Your task to perform on an android device: What time is it in Moscow? Image 0: 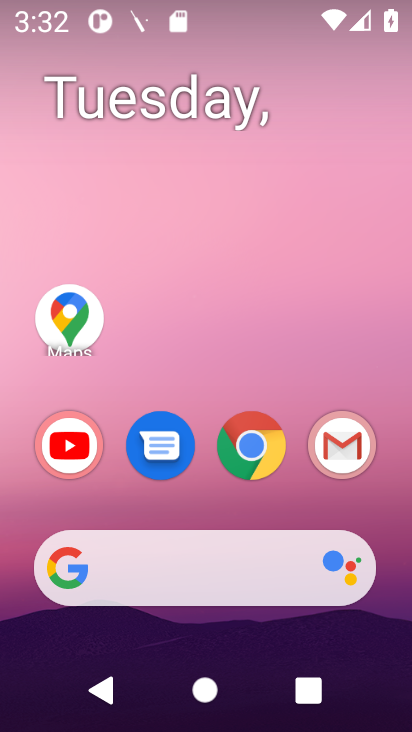
Step 0: drag from (252, 534) to (275, 74)
Your task to perform on an android device: What time is it in Moscow? Image 1: 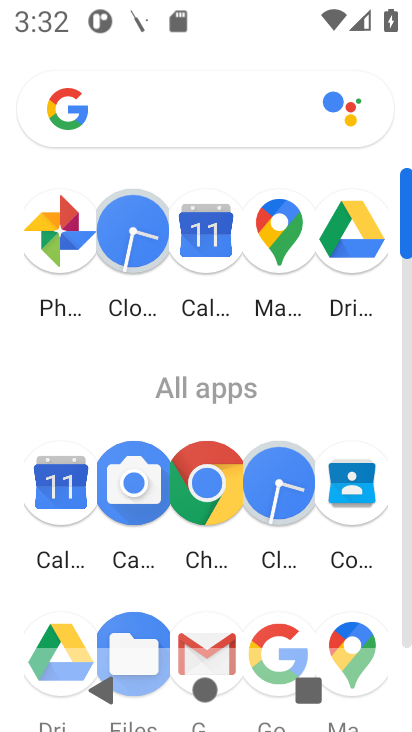
Step 1: click (282, 629)
Your task to perform on an android device: What time is it in Moscow? Image 2: 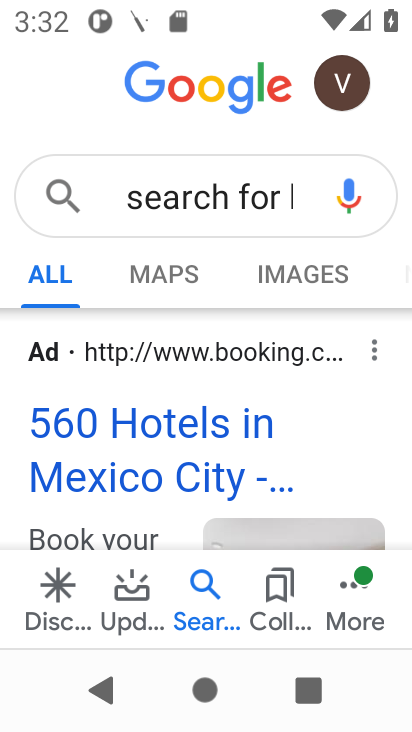
Step 2: click (191, 201)
Your task to perform on an android device: What time is it in Moscow? Image 3: 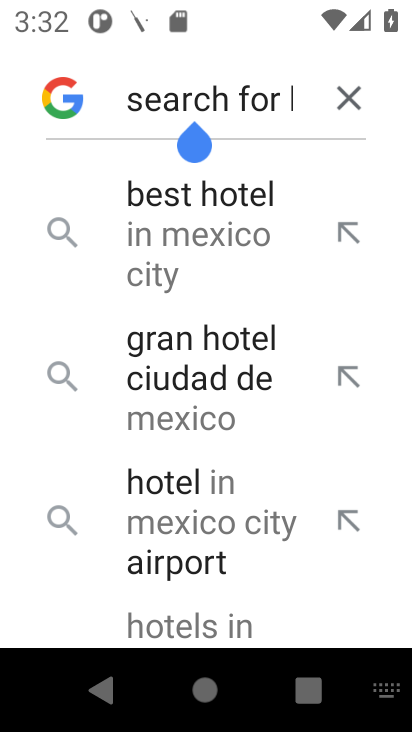
Step 3: click (354, 102)
Your task to perform on an android device: What time is it in Moscow? Image 4: 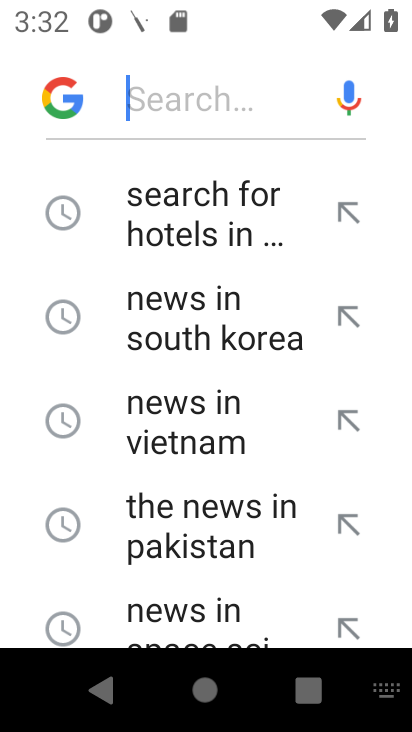
Step 4: type "What time is it in Moscow?"
Your task to perform on an android device: What time is it in Moscow? Image 5: 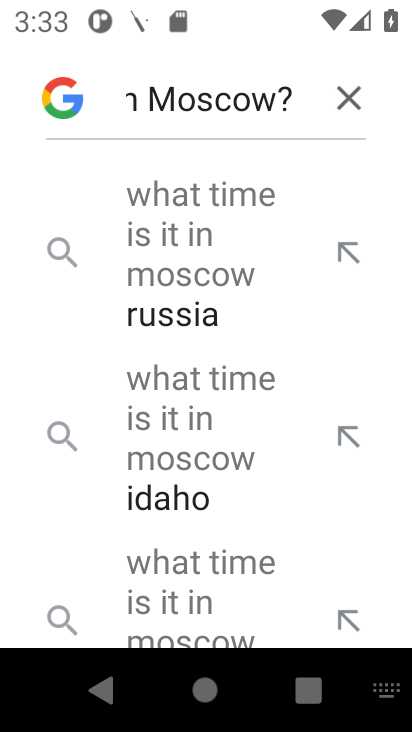
Step 5: click (204, 262)
Your task to perform on an android device: What time is it in Moscow? Image 6: 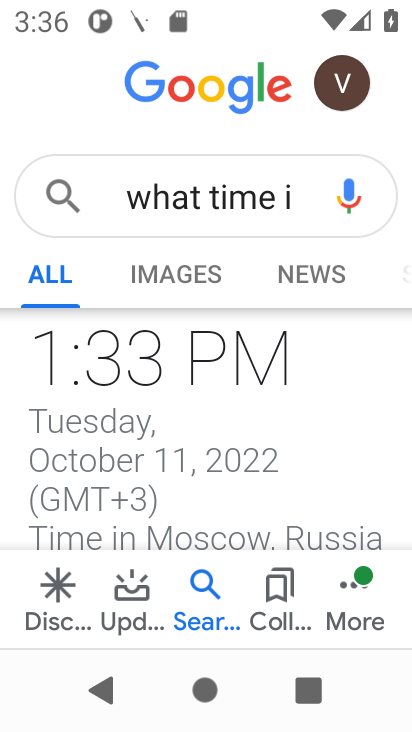
Step 6: task complete